Your task to perform on an android device: Add "razer naga" to the cart on walmart Image 0: 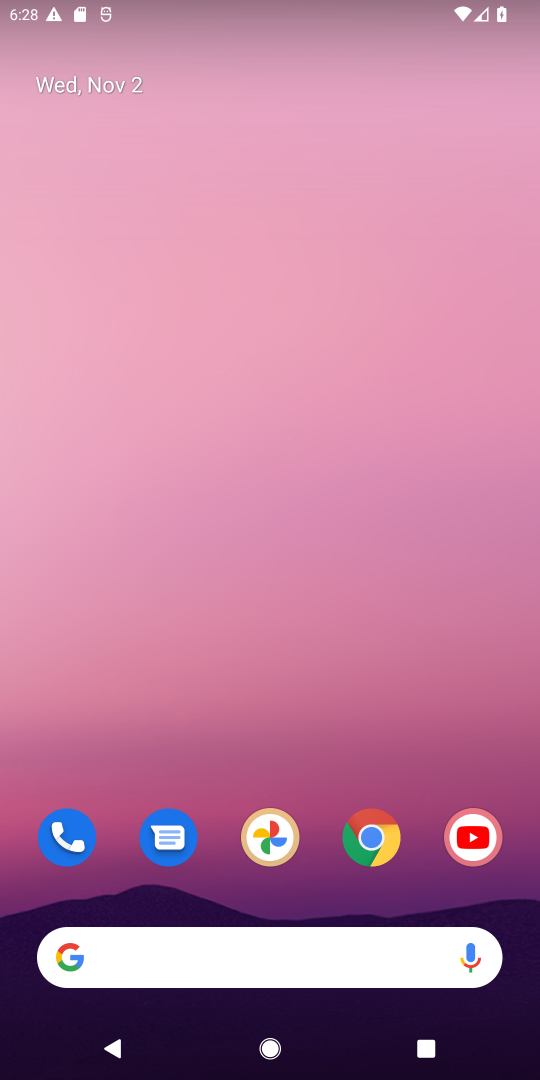
Step 0: click (388, 838)
Your task to perform on an android device: Add "razer naga" to the cart on walmart Image 1: 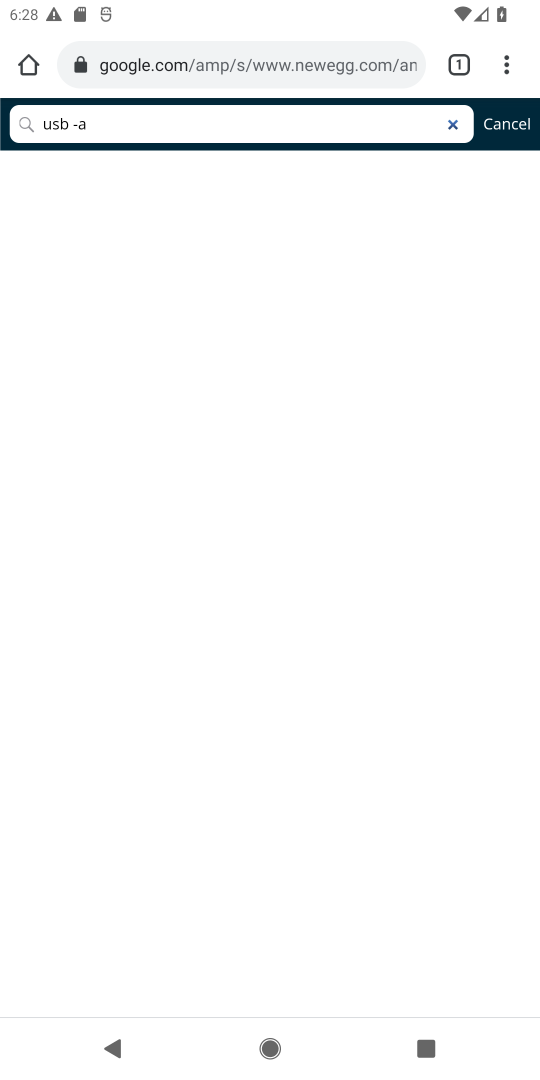
Step 1: click (121, 63)
Your task to perform on an android device: Add "razer naga" to the cart on walmart Image 2: 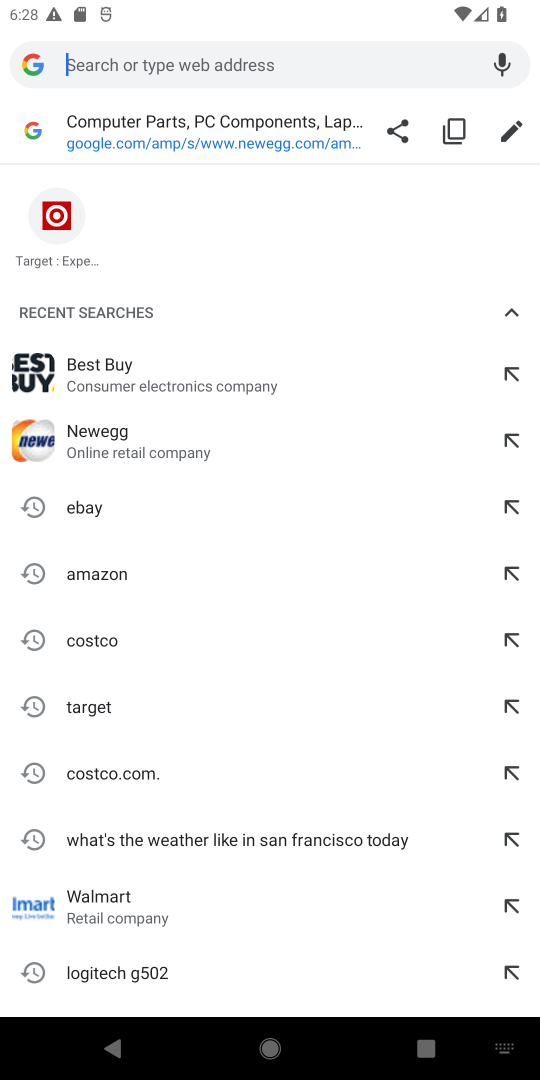
Step 2: type "walmart"
Your task to perform on an android device: Add "razer naga" to the cart on walmart Image 3: 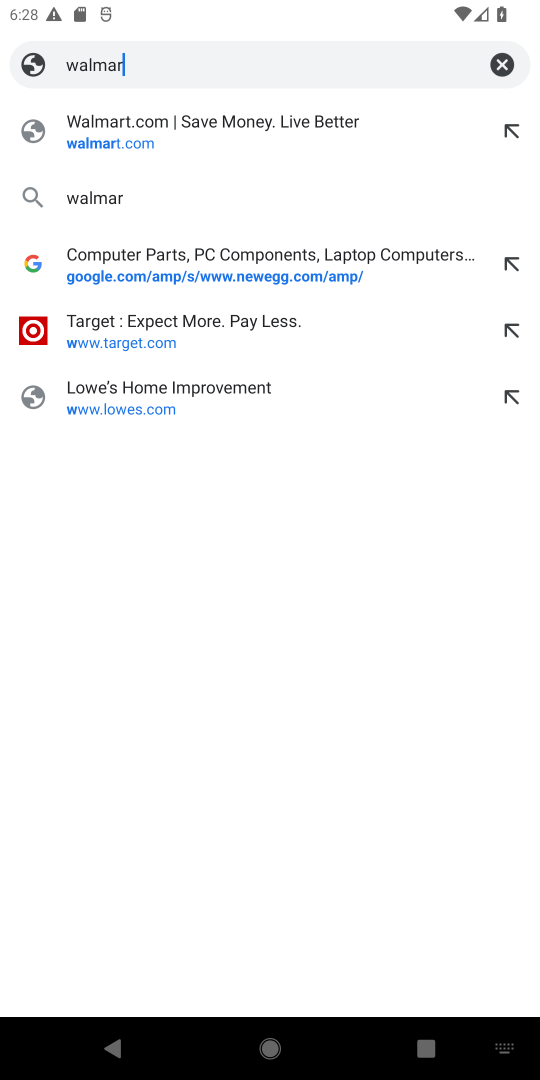
Step 3: type ""
Your task to perform on an android device: Add "razer naga" to the cart on walmart Image 4: 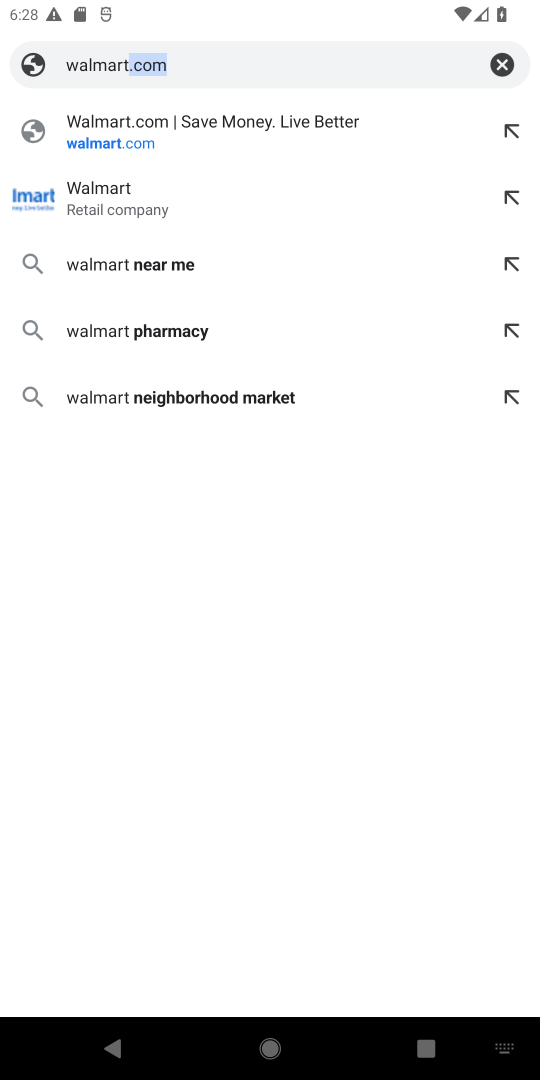
Step 4: click (111, 208)
Your task to perform on an android device: Add "razer naga" to the cart on walmart Image 5: 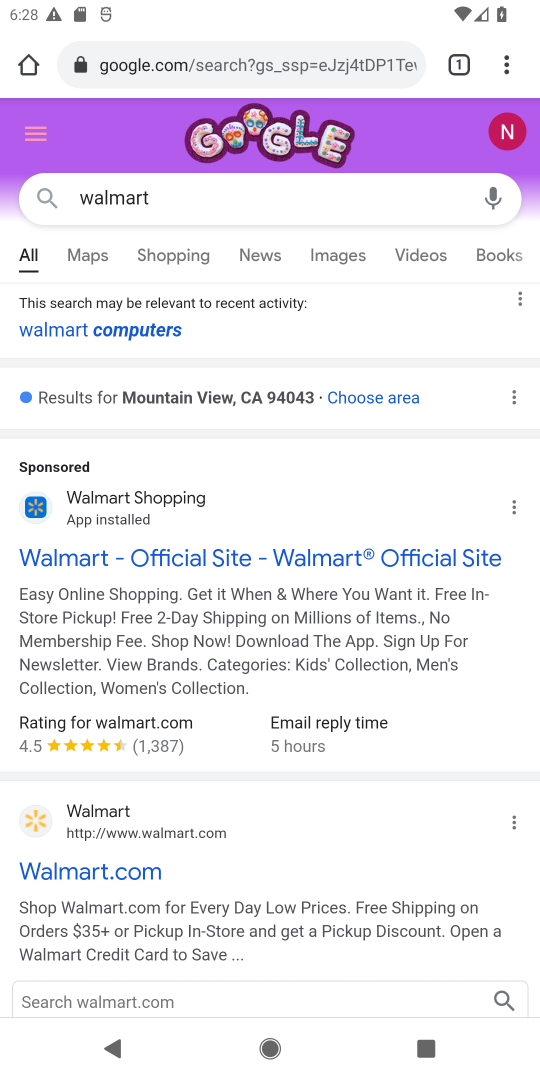
Step 5: drag from (170, 807) to (165, 352)
Your task to perform on an android device: Add "razer naga" to the cart on walmart Image 6: 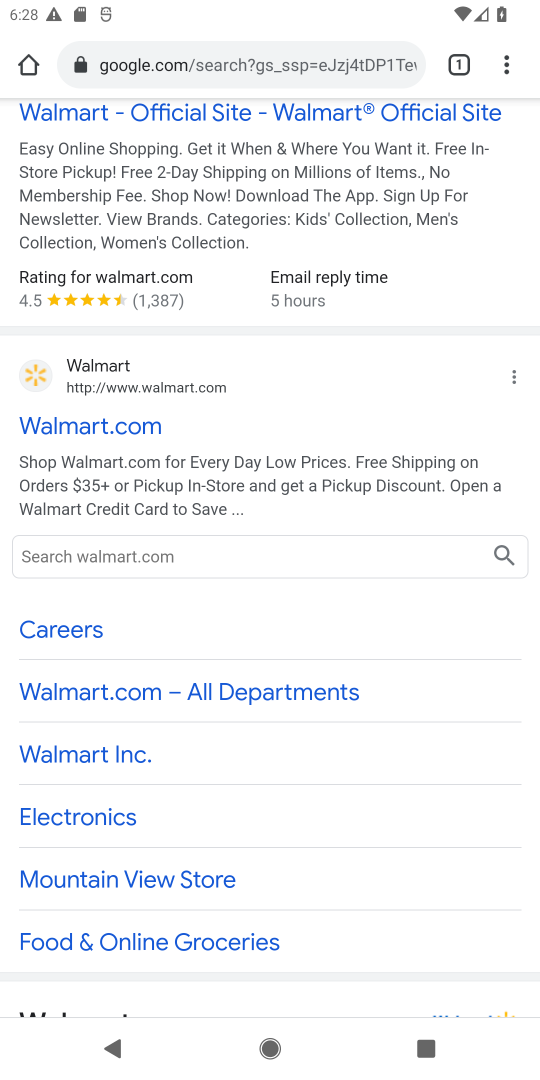
Step 6: click (79, 417)
Your task to perform on an android device: Add "razer naga" to the cart on walmart Image 7: 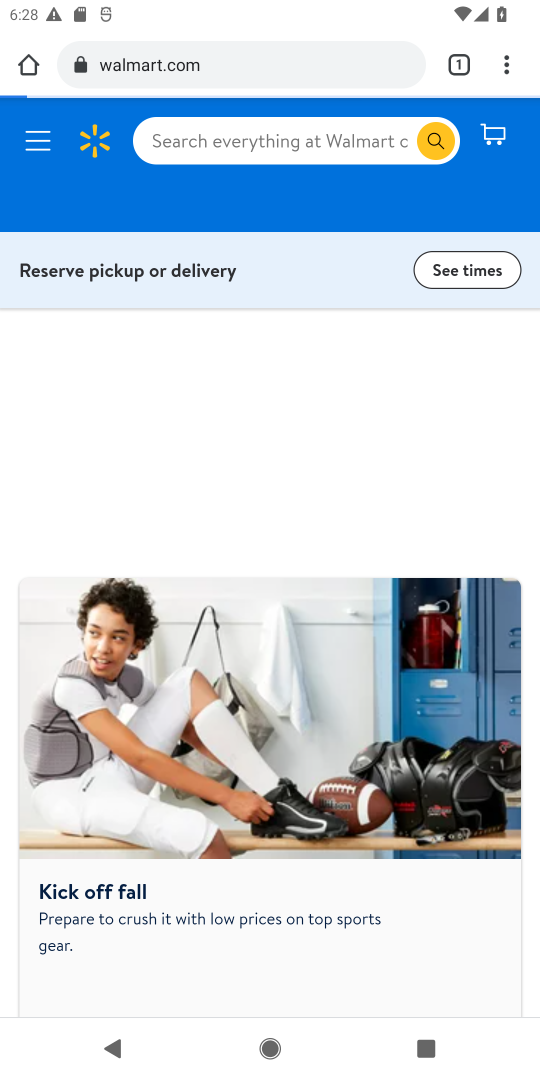
Step 7: drag from (276, 700) to (248, 144)
Your task to perform on an android device: Add "razer naga" to the cart on walmart Image 8: 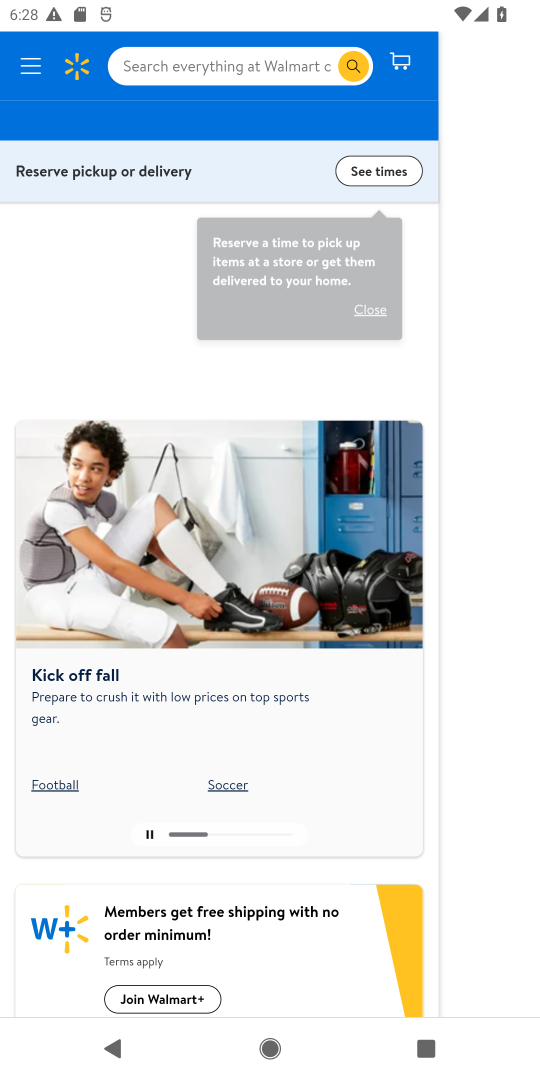
Step 8: click (203, 82)
Your task to perform on an android device: Add "razer naga" to the cart on walmart Image 9: 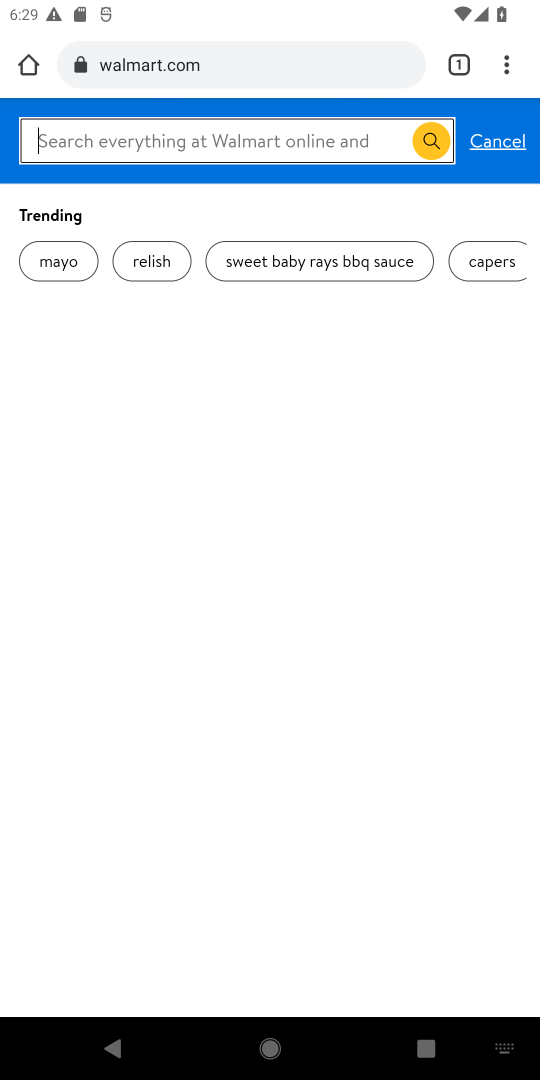
Step 9: type "razer naga"
Your task to perform on an android device: Add "razer naga" to the cart on walmart Image 10: 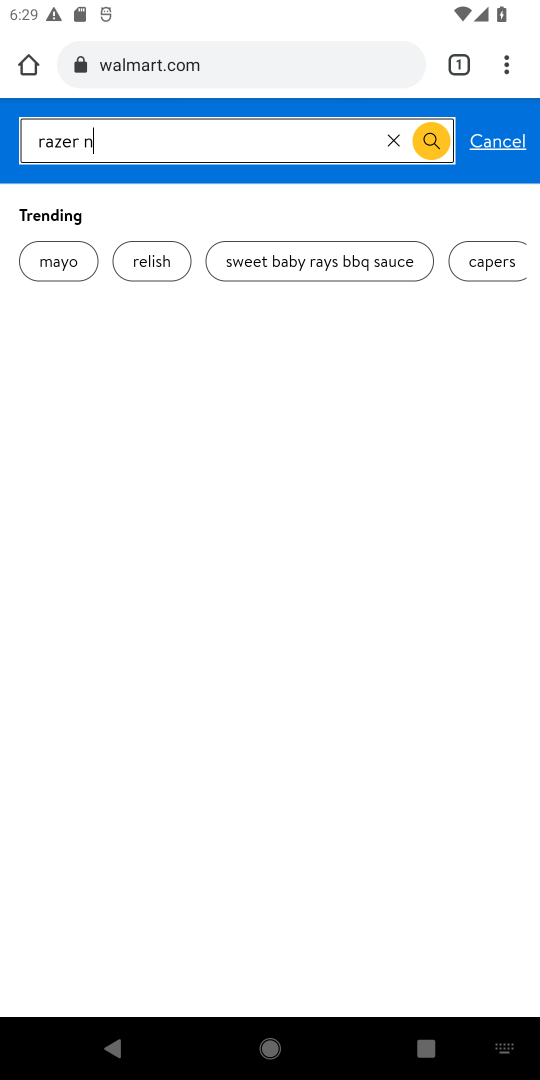
Step 10: type ""
Your task to perform on an android device: Add "razer naga" to the cart on walmart Image 11: 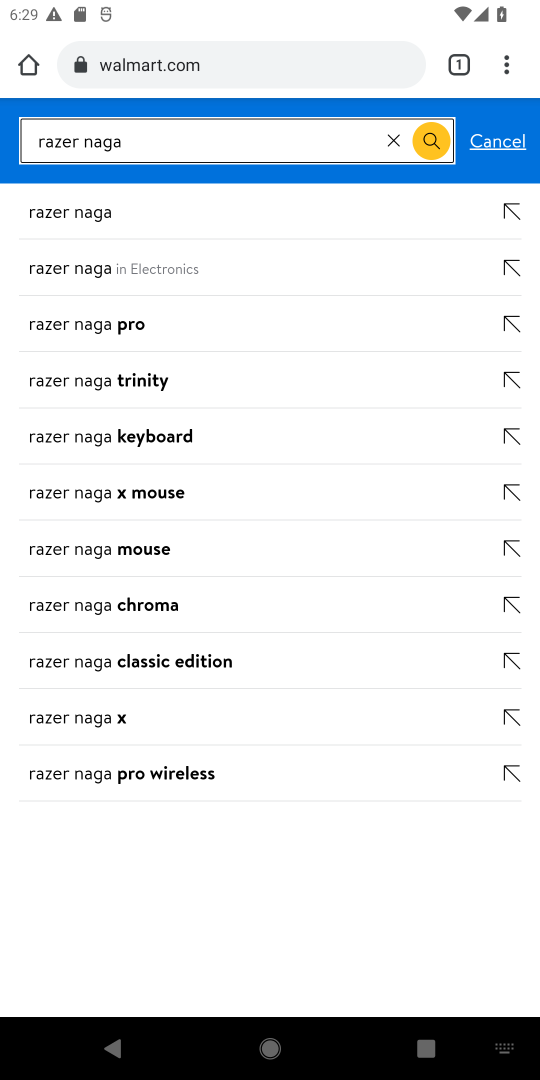
Step 11: click (83, 204)
Your task to perform on an android device: Add "razer naga" to the cart on walmart Image 12: 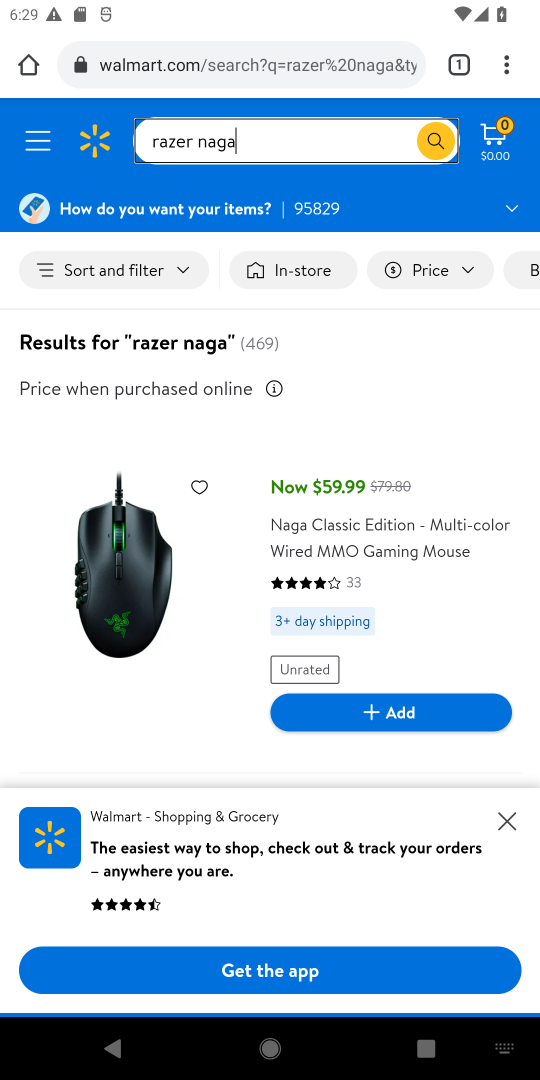
Step 12: drag from (180, 601) to (243, 154)
Your task to perform on an android device: Add "razer naga" to the cart on walmart Image 13: 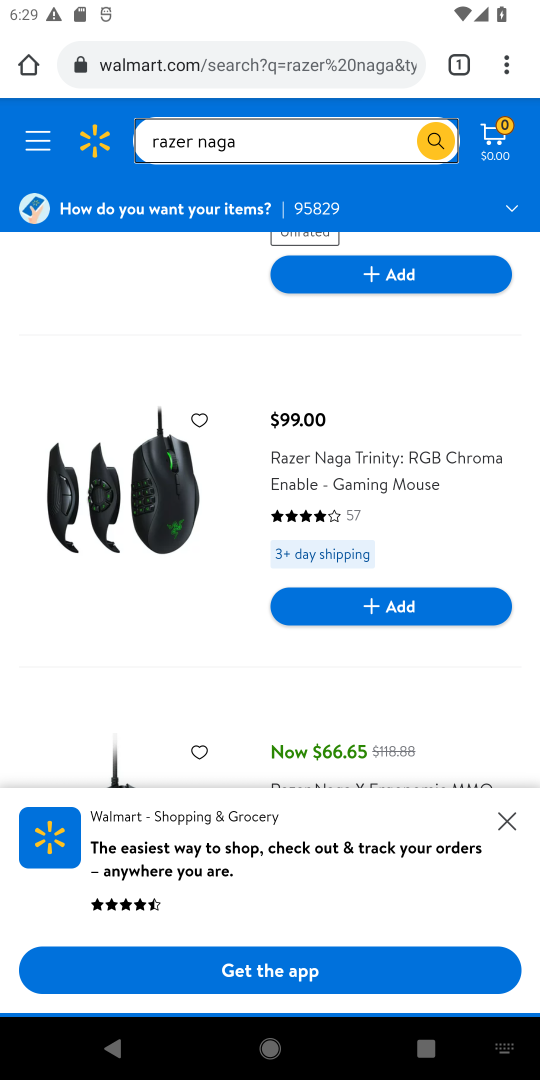
Step 13: click (148, 510)
Your task to perform on an android device: Add "razer naga" to the cart on walmart Image 14: 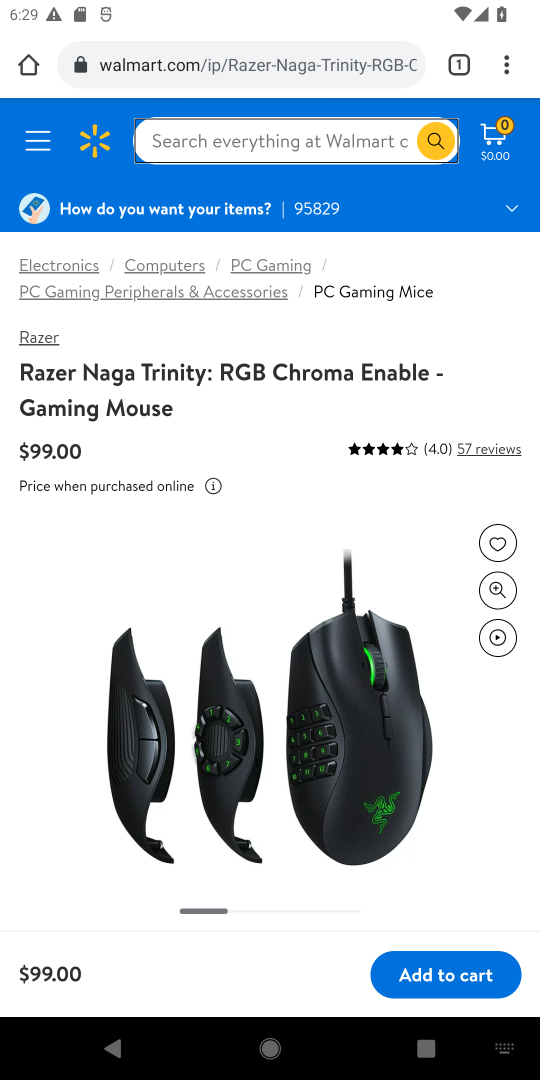
Step 14: drag from (263, 763) to (371, 280)
Your task to perform on an android device: Add "razer naga" to the cart on walmart Image 15: 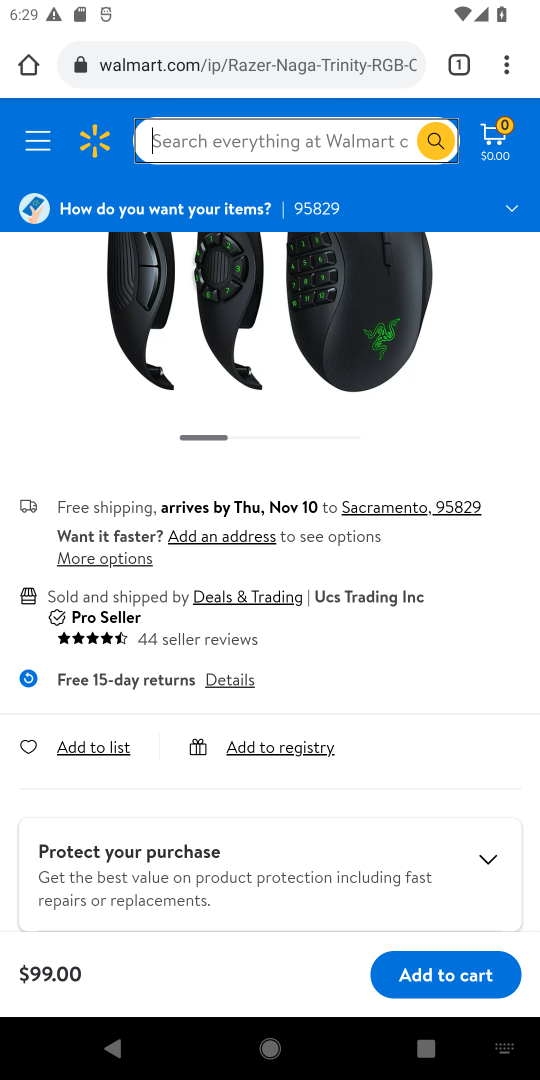
Step 15: click (409, 963)
Your task to perform on an android device: Add "razer naga" to the cart on walmart Image 16: 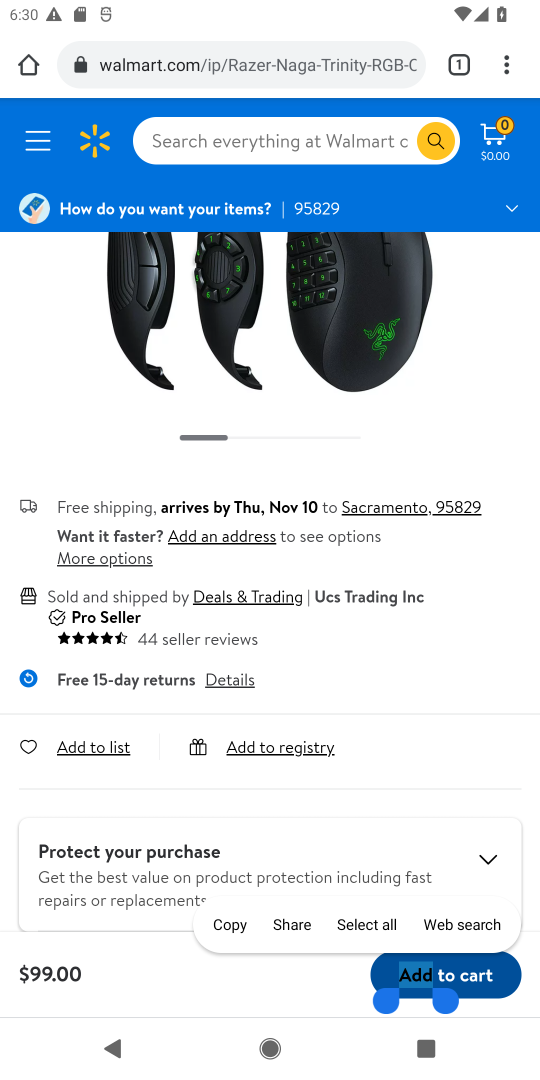
Step 16: click (481, 989)
Your task to perform on an android device: Add "razer naga" to the cart on walmart Image 17: 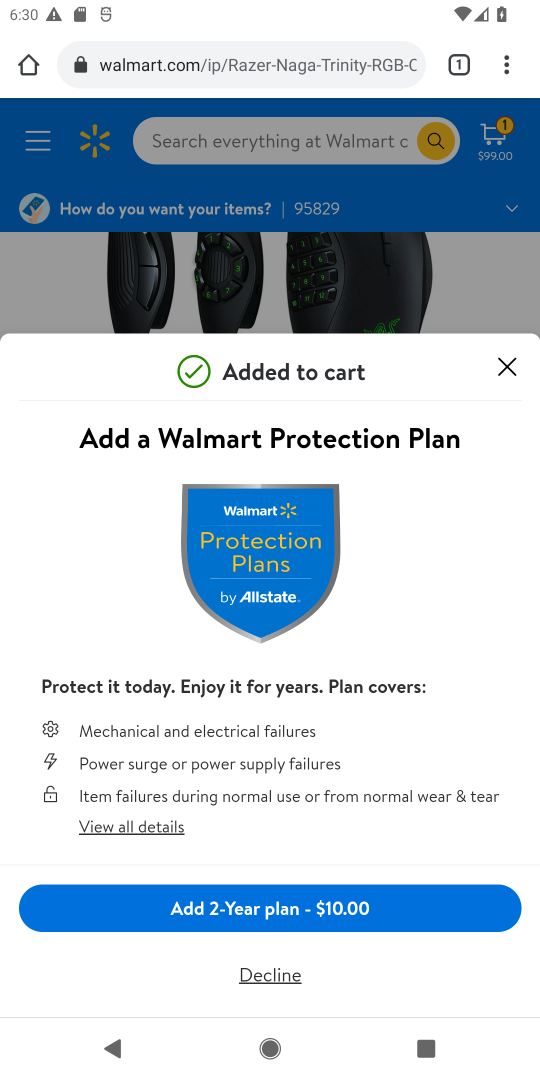
Step 17: click (505, 362)
Your task to perform on an android device: Add "razer naga" to the cart on walmart Image 18: 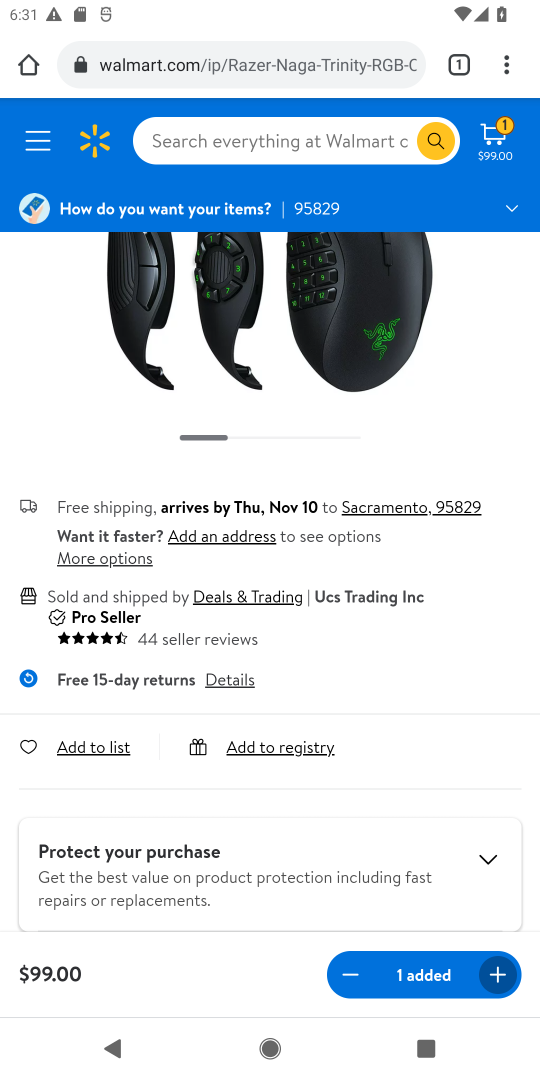
Step 18: task complete